Your task to perform on an android device: Show me popular games on the Play Store Image 0: 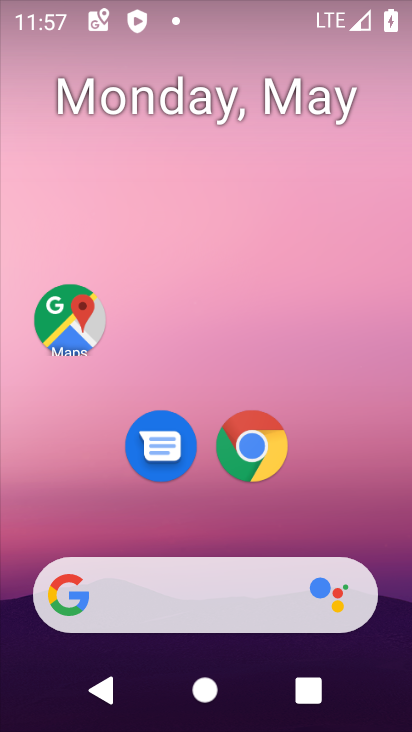
Step 0: drag from (308, 505) to (286, 119)
Your task to perform on an android device: Show me popular games on the Play Store Image 1: 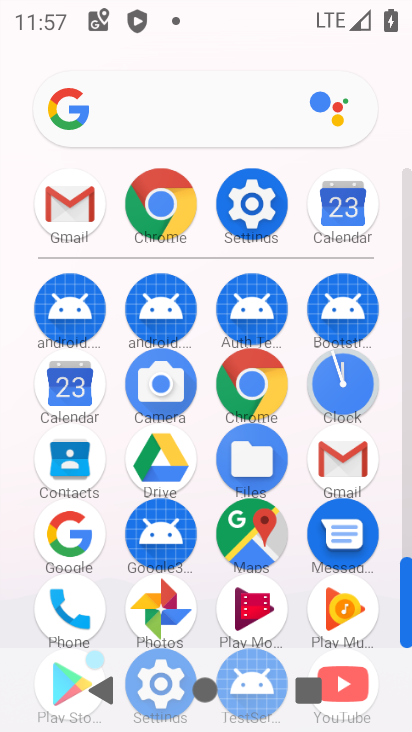
Step 1: drag from (394, 458) to (392, 144)
Your task to perform on an android device: Show me popular games on the Play Store Image 2: 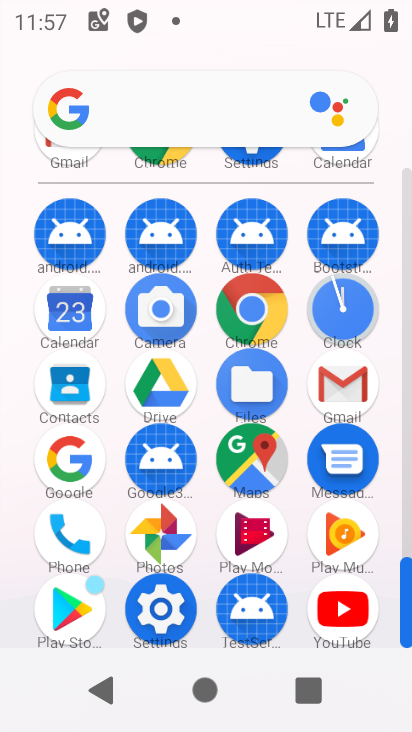
Step 2: click (80, 606)
Your task to perform on an android device: Show me popular games on the Play Store Image 3: 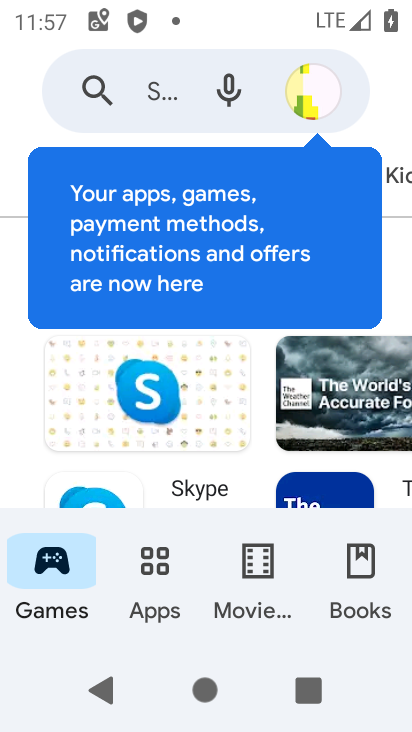
Step 3: click (213, 92)
Your task to perform on an android device: Show me popular games on the Play Store Image 4: 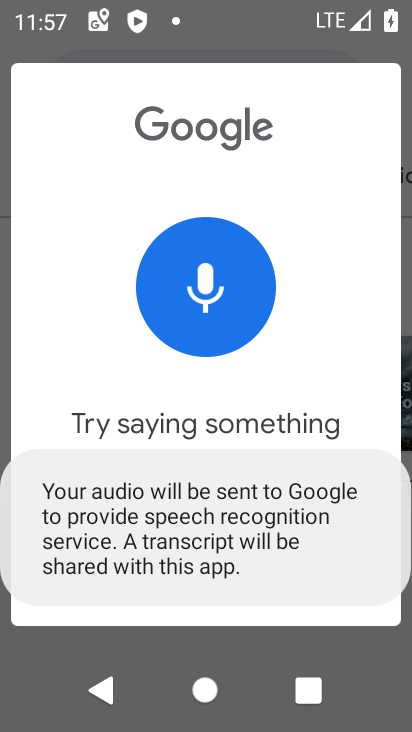
Step 4: press back button
Your task to perform on an android device: Show me popular games on the Play Store Image 5: 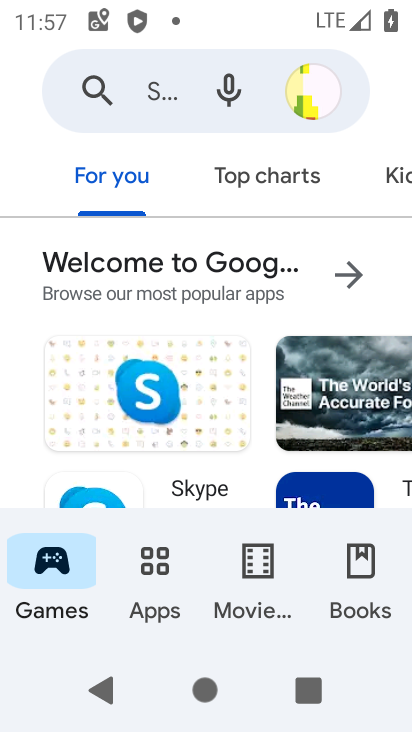
Step 5: click (159, 94)
Your task to perform on an android device: Show me popular games on the Play Store Image 6: 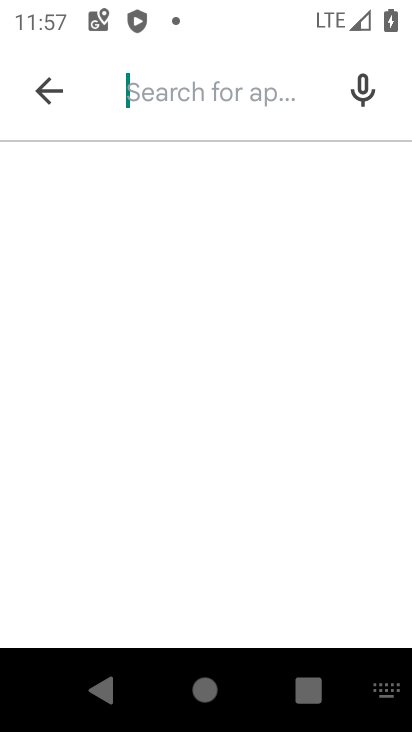
Step 6: type "popular games"
Your task to perform on an android device: Show me popular games on the Play Store Image 7: 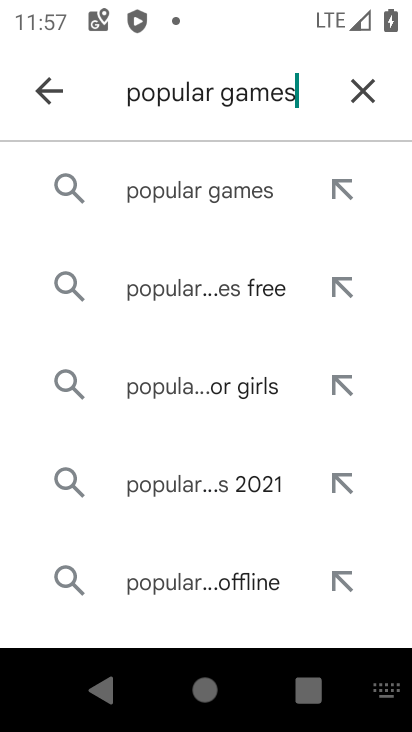
Step 7: click (214, 195)
Your task to perform on an android device: Show me popular games on the Play Store Image 8: 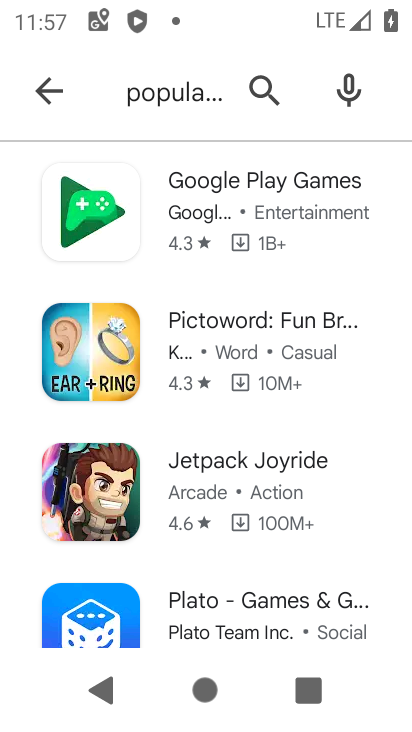
Step 8: task complete